Your task to perform on an android device: Open settings Image 0: 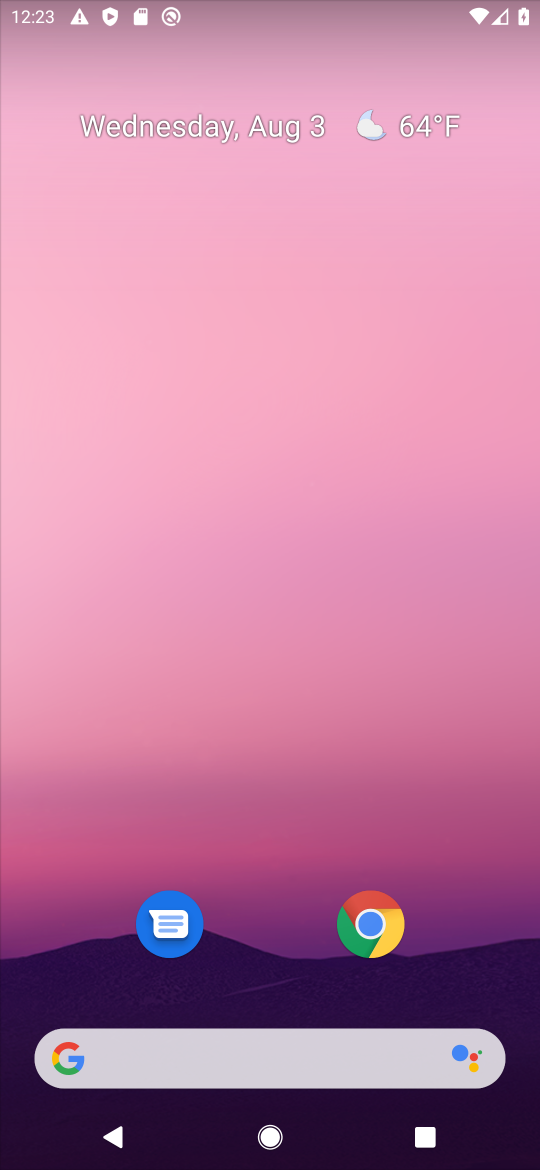
Step 0: drag from (277, 882) to (391, 33)
Your task to perform on an android device: Open settings Image 1: 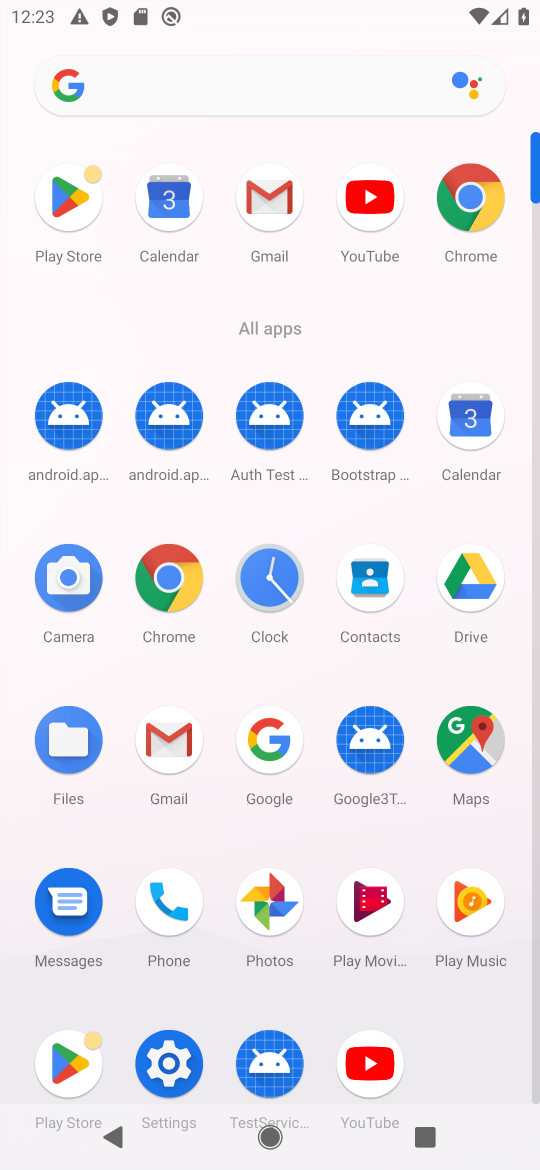
Step 1: click (144, 1065)
Your task to perform on an android device: Open settings Image 2: 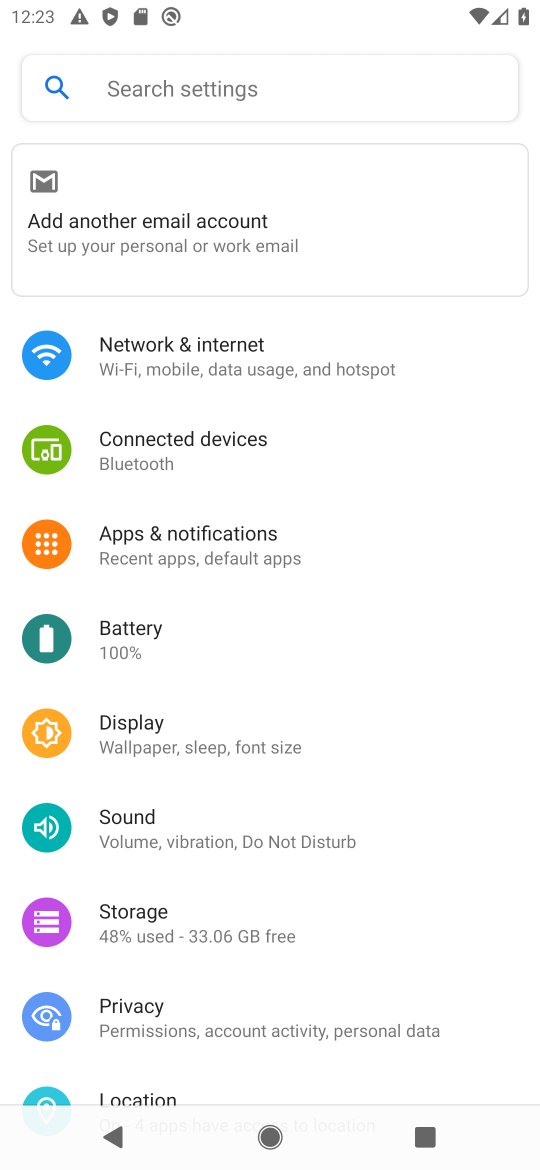
Step 2: task complete